Your task to perform on an android device: Do I have any events tomorrow? Image 0: 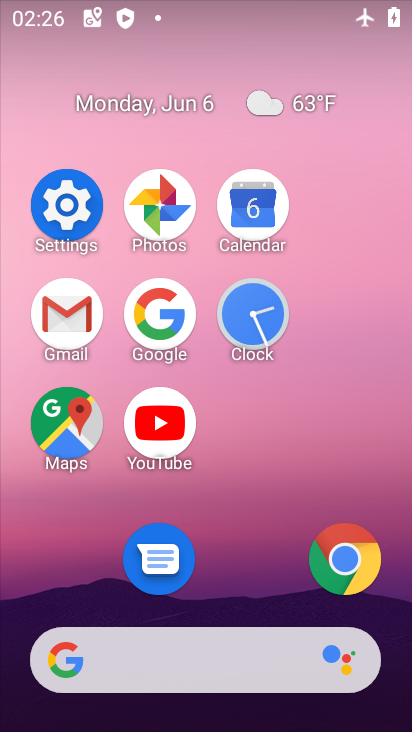
Step 0: click (274, 211)
Your task to perform on an android device: Do I have any events tomorrow? Image 1: 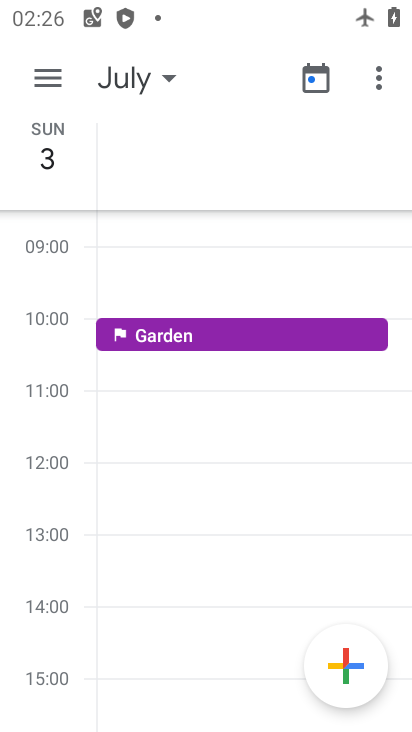
Step 1: click (153, 75)
Your task to perform on an android device: Do I have any events tomorrow? Image 2: 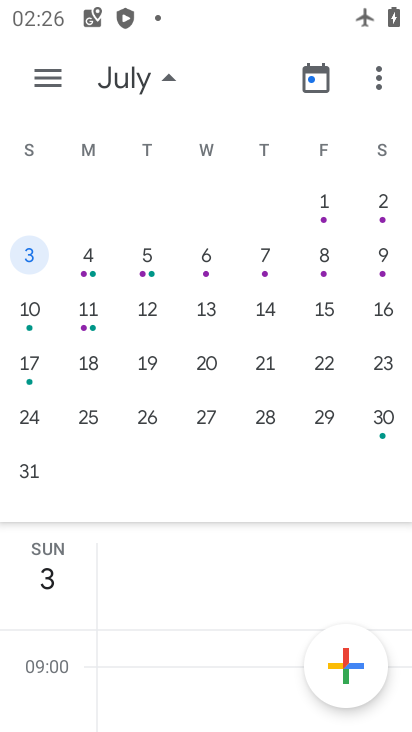
Step 2: drag from (37, 319) to (333, 352)
Your task to perform on an android device: Do I have any events tomorrow? Image 3: 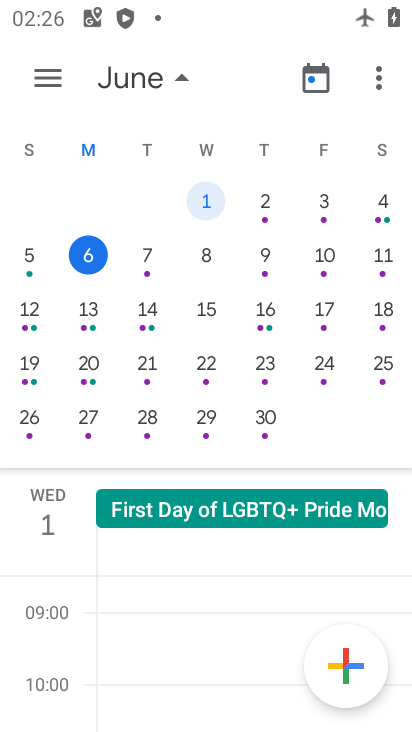
Step 3: click (144, 264)
Your task to perform on an android device: Do I have any events tomorrow? Image 4: 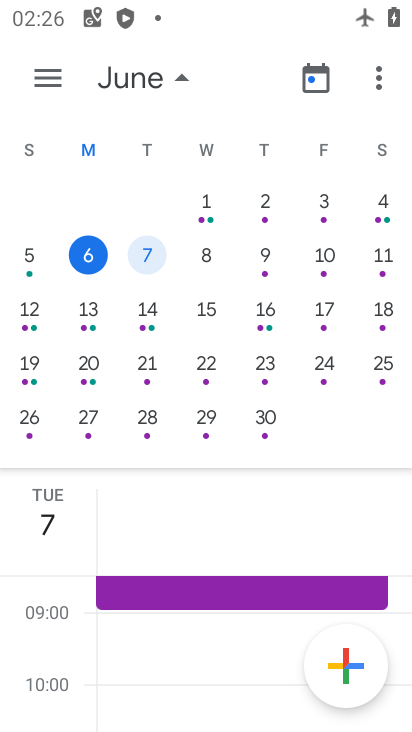
Step 4: task complete